Your task to perform on an android device: What is the recent news? Image 0: 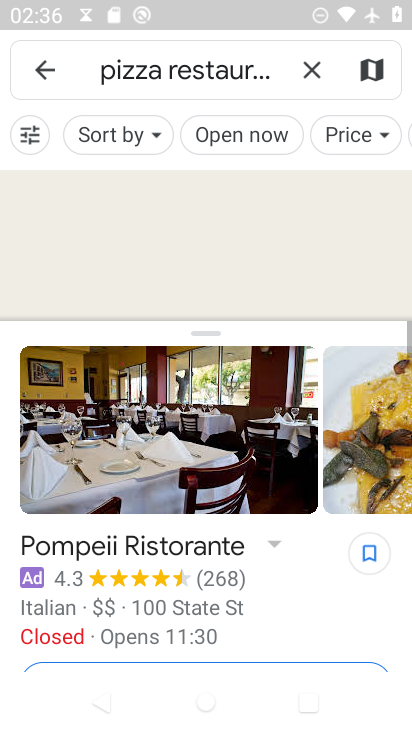
Step 0: press home button
Your task to perform on an android device: What is the recent news? Image 1: 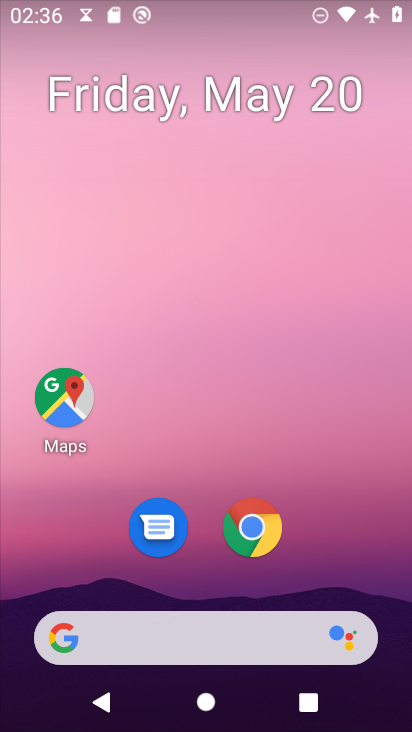
Step 1: click (70, 635)
Your task to perform on an android device: What is the recent news? Image 2: 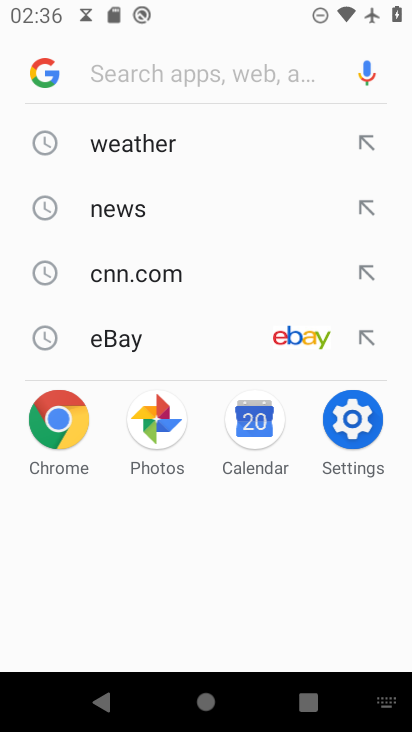
Step 2: click (108, 203)
Your task to perform on an android device: What is the recent news? Image 3: 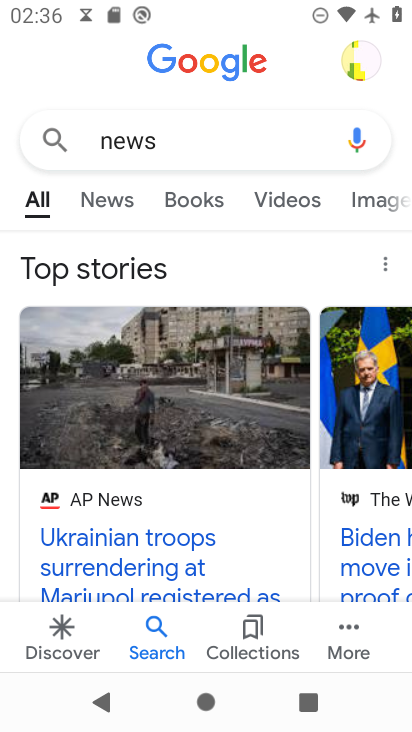
Step 3: click (102, 202)
Your task to perform on an android device: What is the recent news? Image 4: 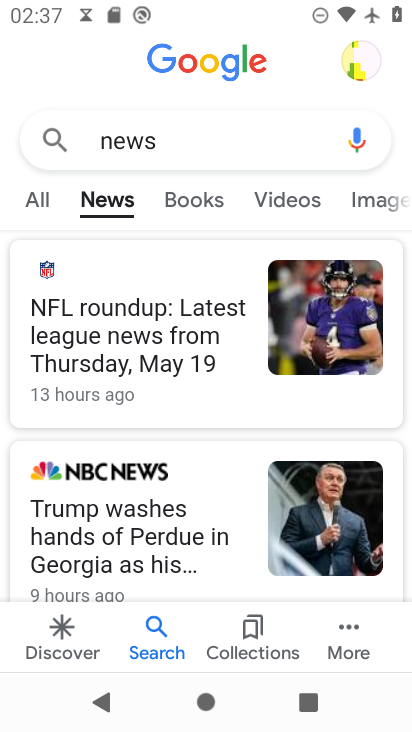
Step 4: task complete